Your task to perform on an android device: What's on my calendar today? Image 0: 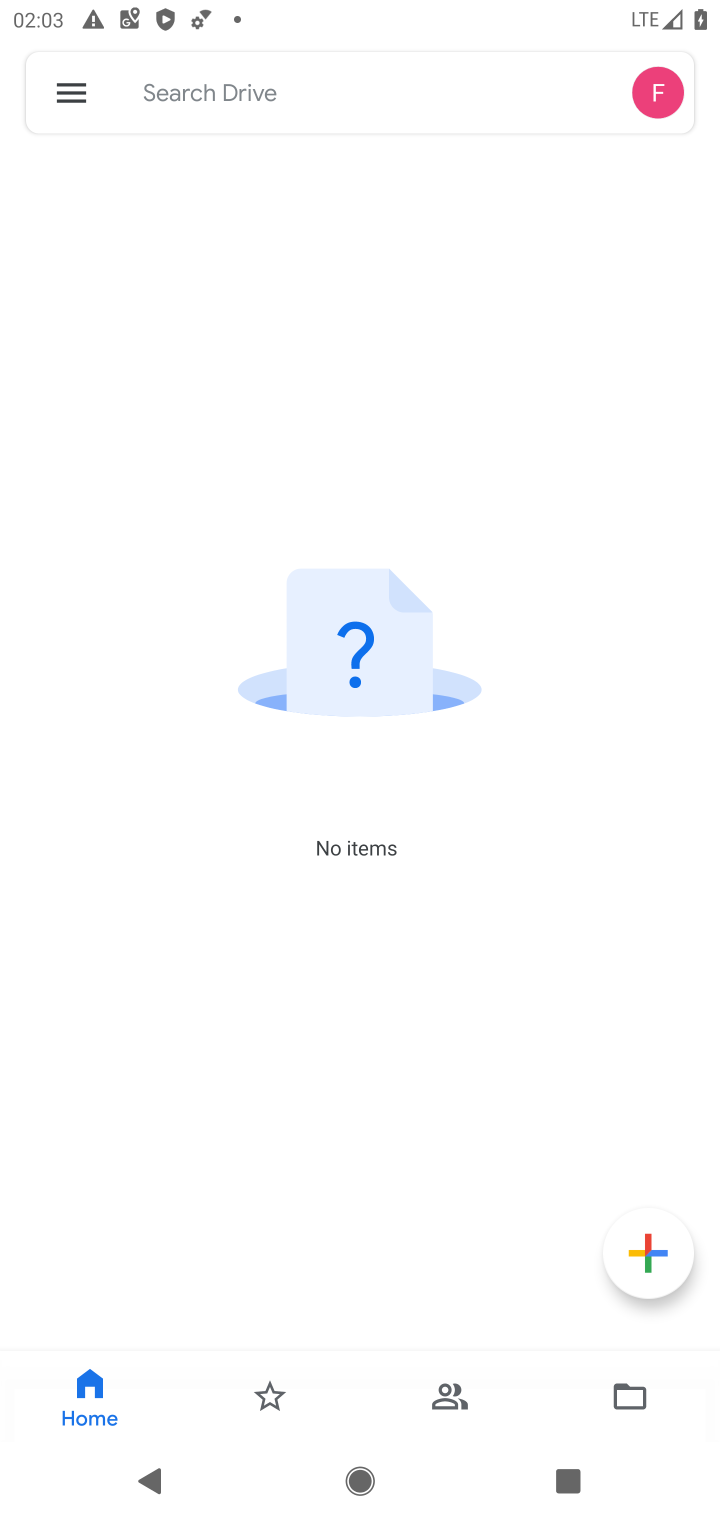
Step 0: press home button
Your task to perform on an android device: What's on my calendar today? Image 1: 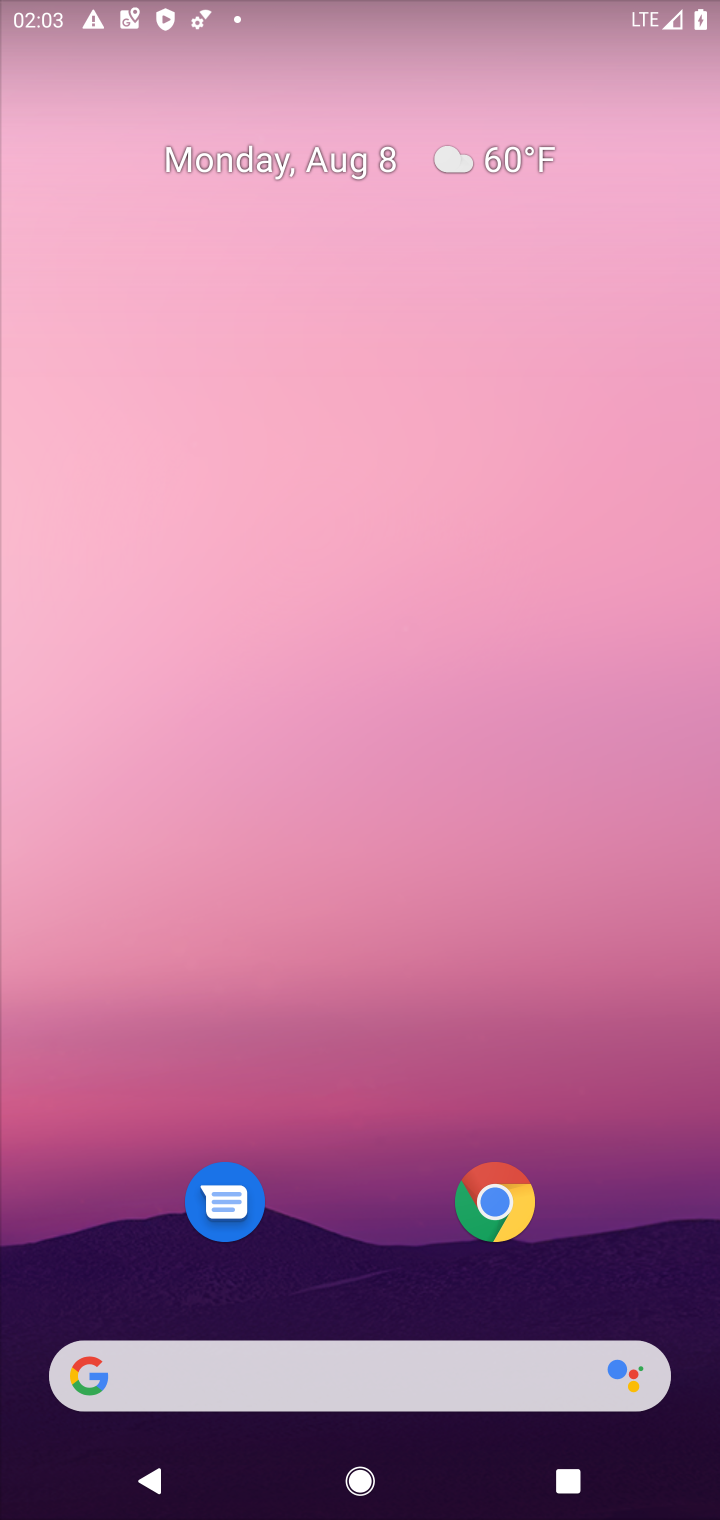
Step 1: click (323, 1275)
Your task to perform on an android device: What's on my calendar today? Image 2: 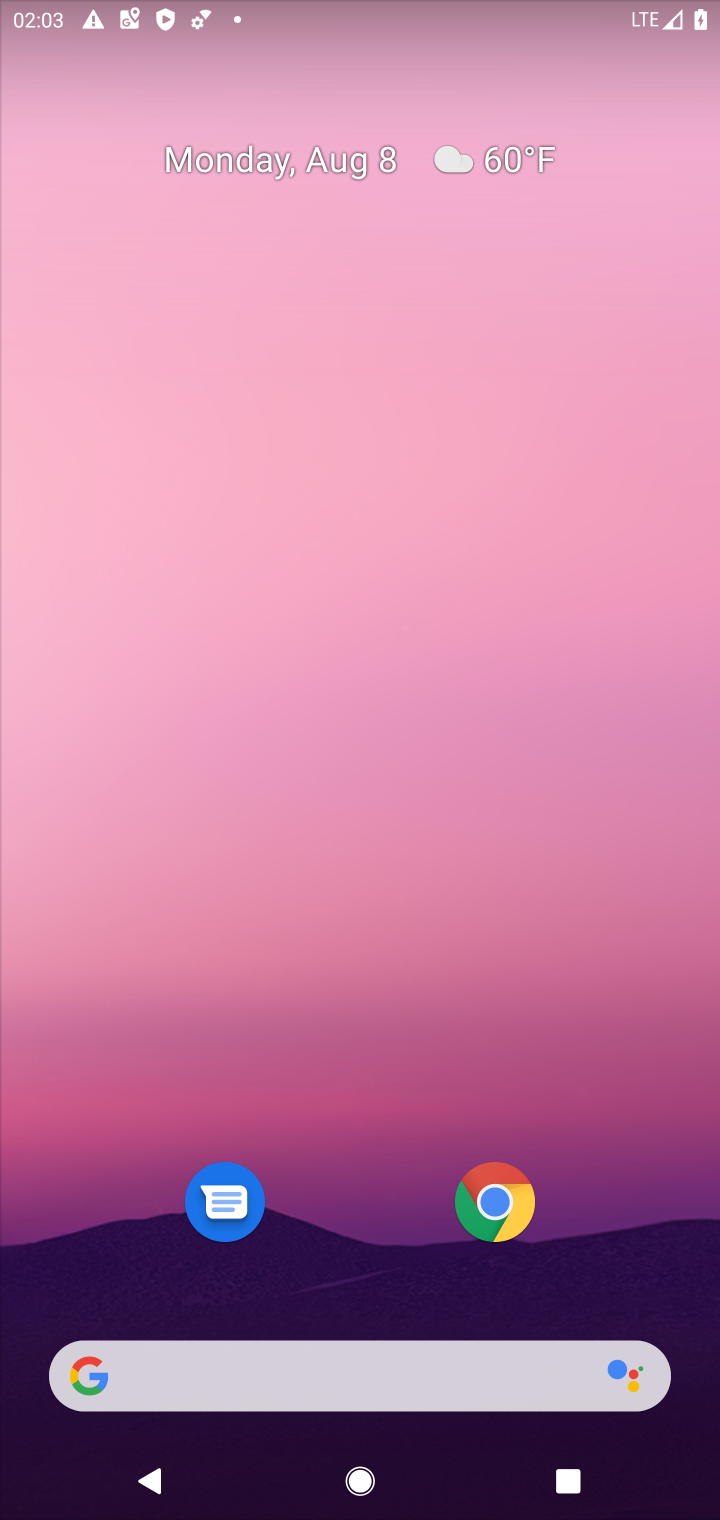
Step 2: click (242, 225)
Your task to perform on an android device: What's on my calendar today? Image 3: 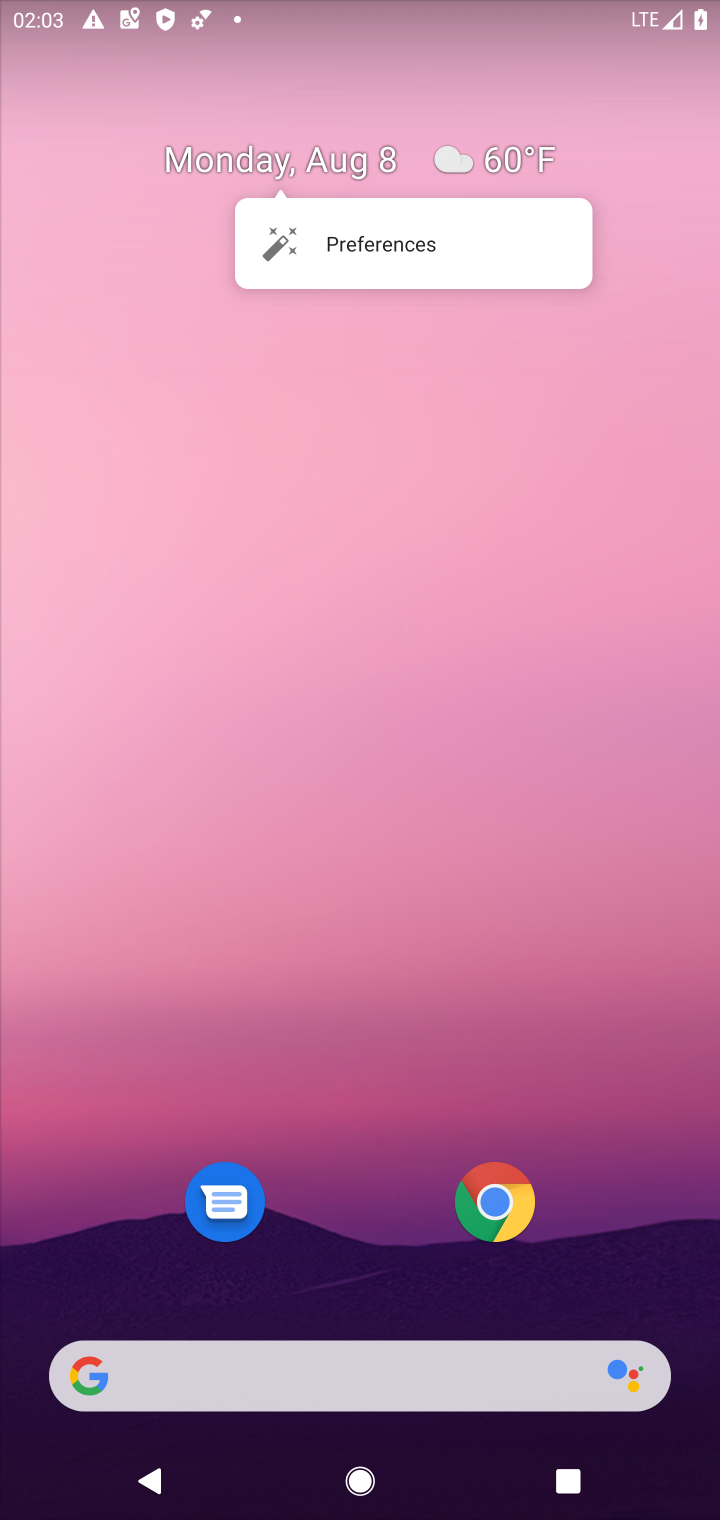
Step 3: click (385, 1260)
Your task to perform on an android device: What's on my calendar today? Image 4: 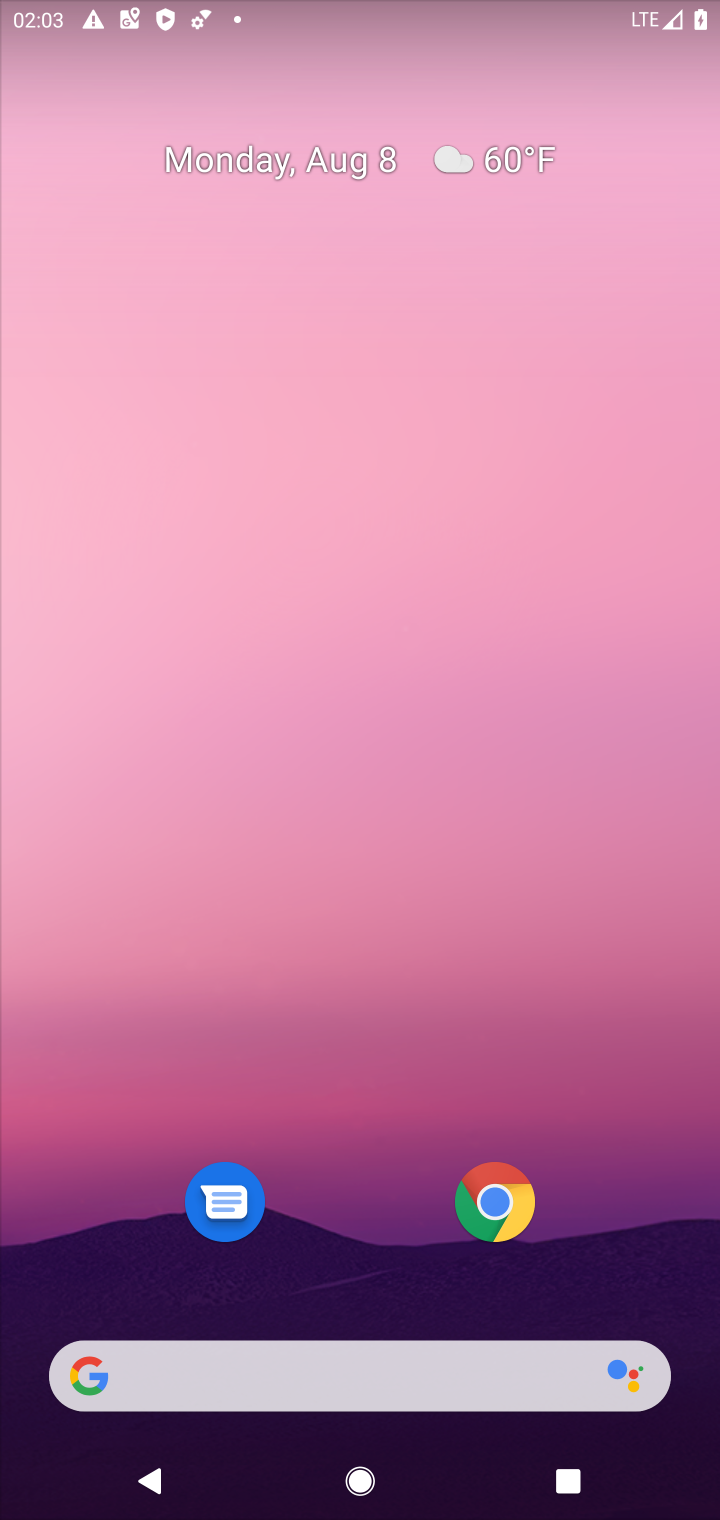
Step 4: drag from (367, 277) to (365, 79)
Your task to perform on an android device: What's on my calendar today? Image 5: 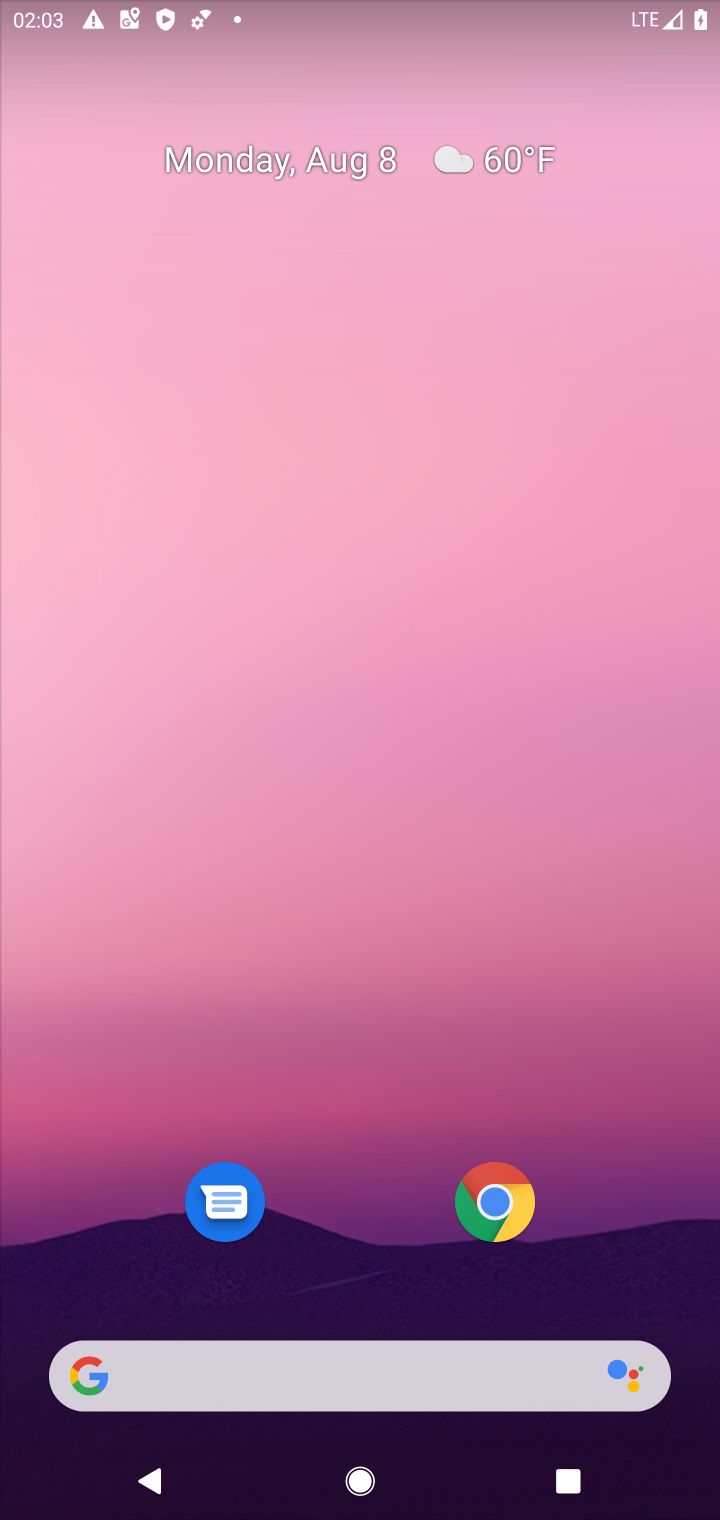
Step 5: drag from (369, 693) to (369, 98)
Your task to perform on an android device: What's on my calendar today? Image 6: 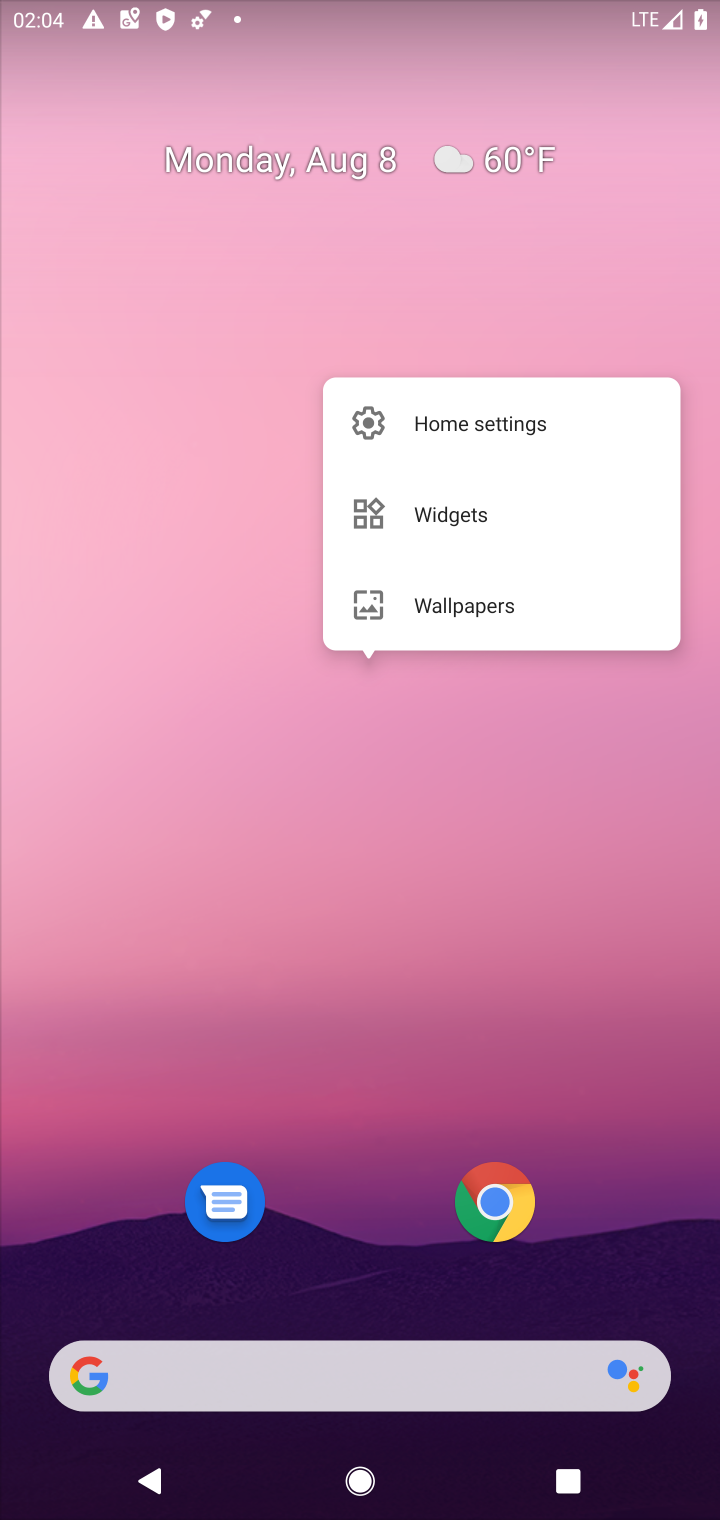
Step 6: click (404, 1215)
Your task to perform on an android device: What's on my calendar today? Image 7: 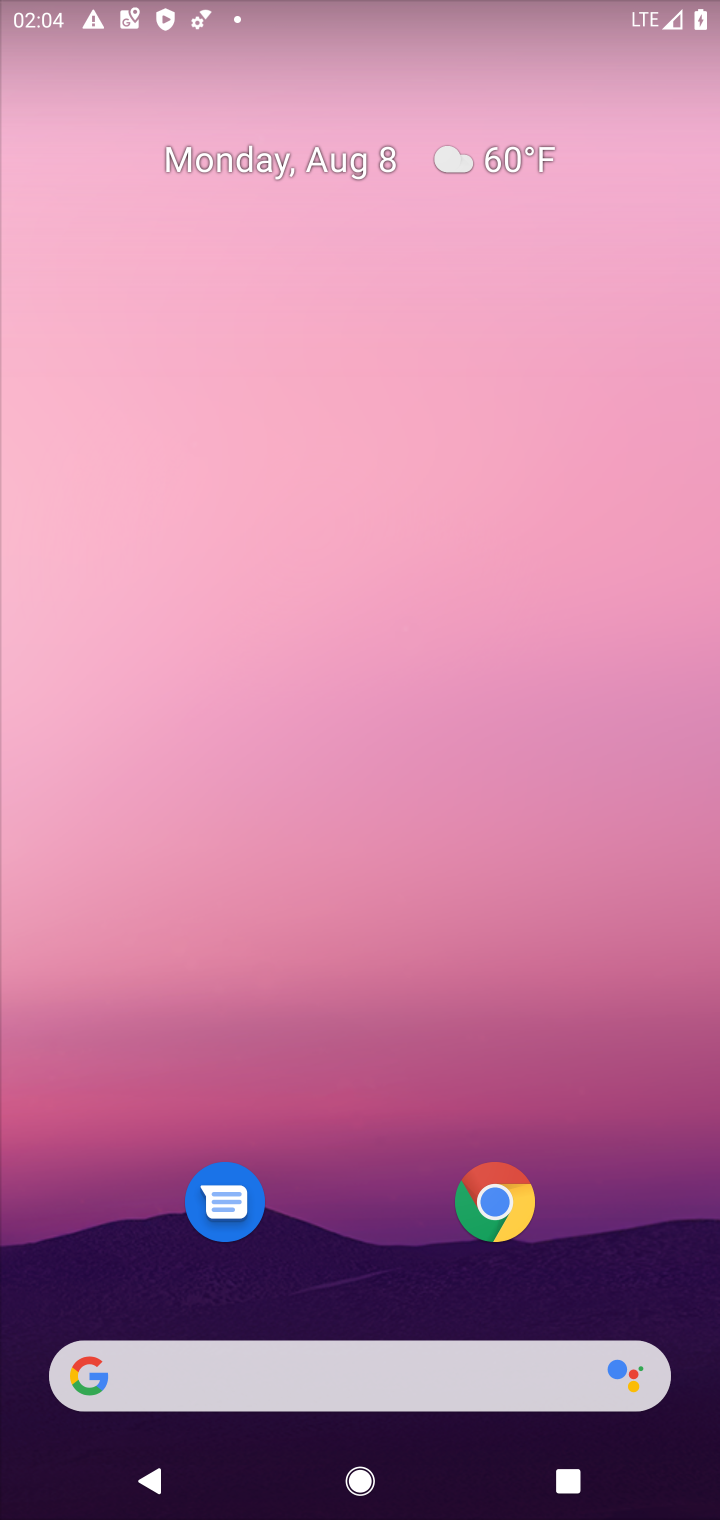
Step 7: drag from (315, 405) to (186, 26)
Your task to perform on an android device: What's on my calendar today? Image 8: 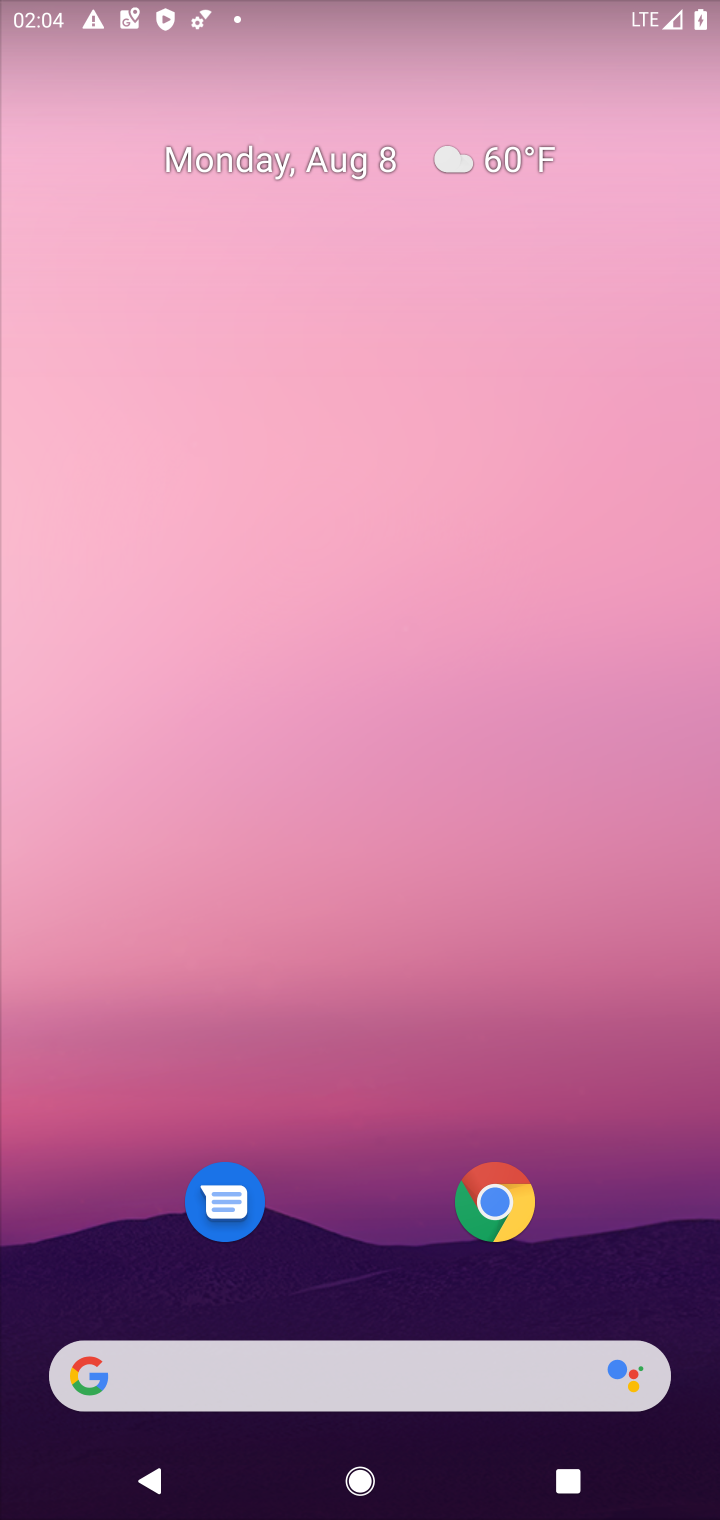
Step 8: drag from (355, 993) to (373, 74)
Your task to perform on an android device: What's on my calendar today? Image 9: 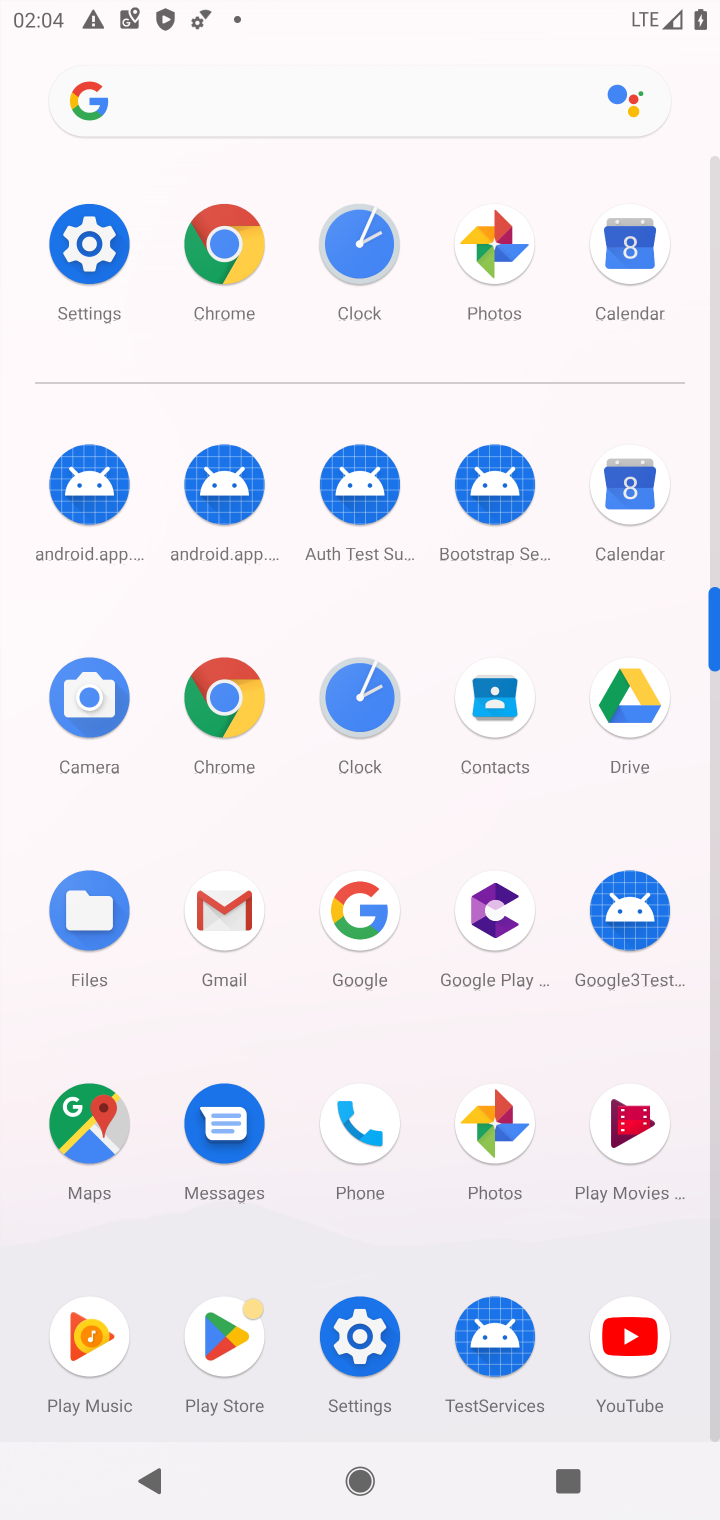
Step 9: click (655, 504)
Your task to perform on an android device: What's on my calendar today? Image 10: 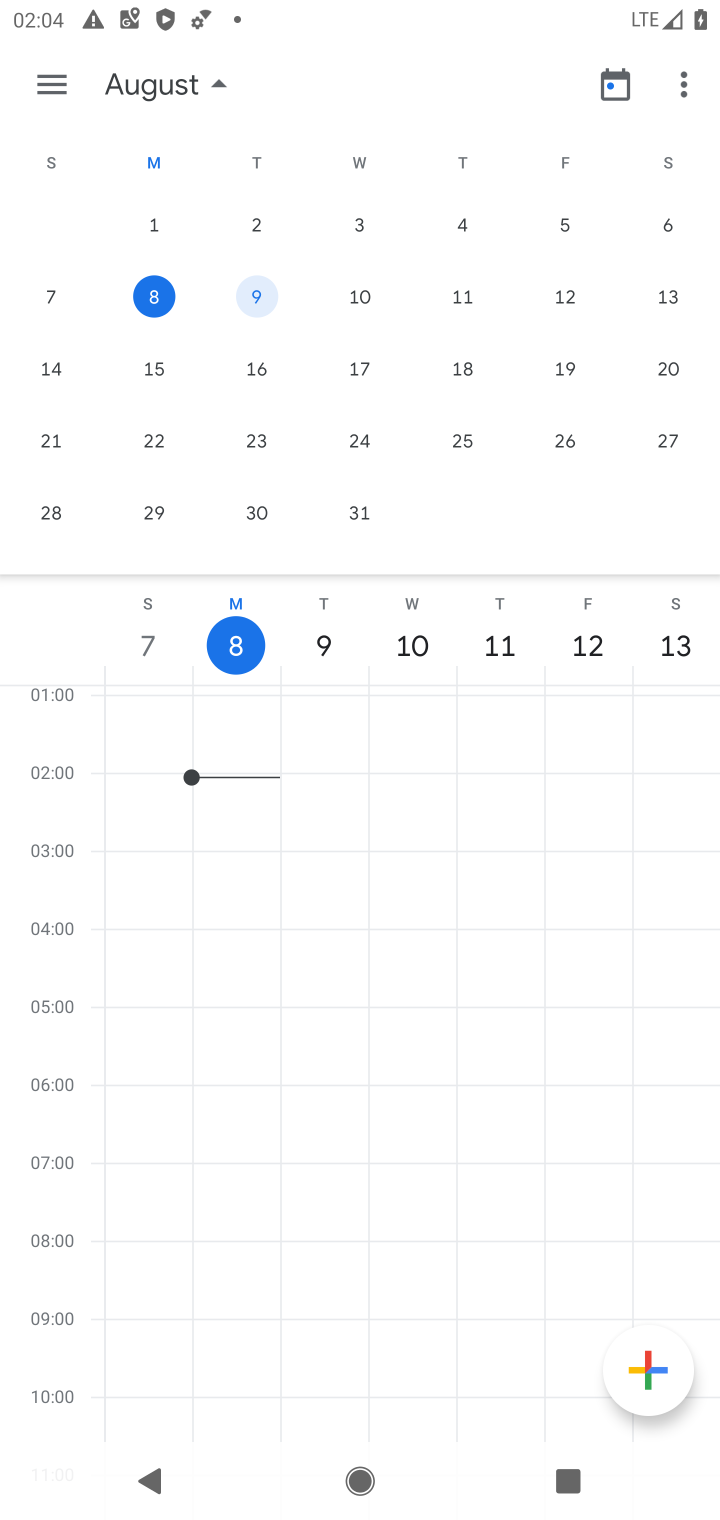
Step 10: click (39, 70)
Your task to perform on an android device: What's on my calendar today? Image 11: 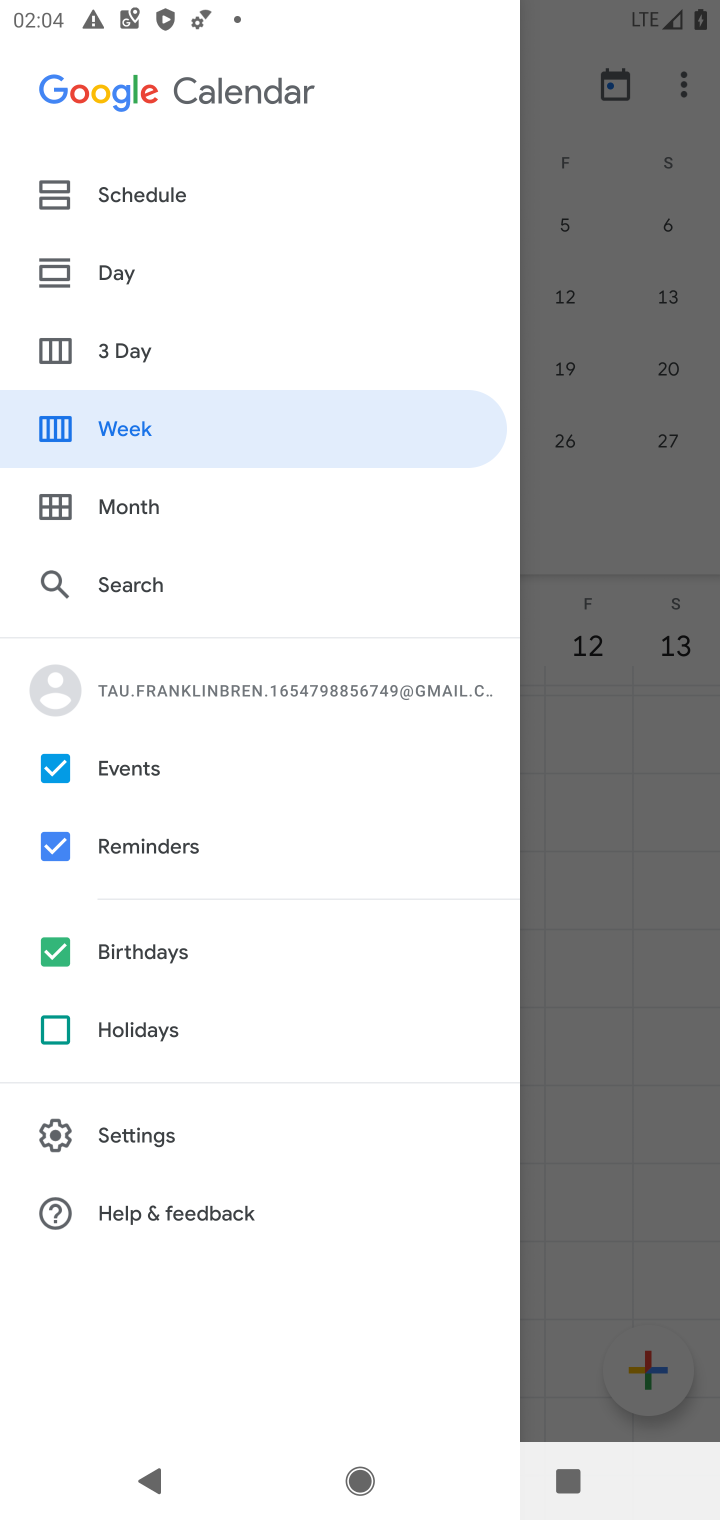
Step 11: click (95, 186)
Your task to perform on an android device: What's on my calendar today? Image 12: 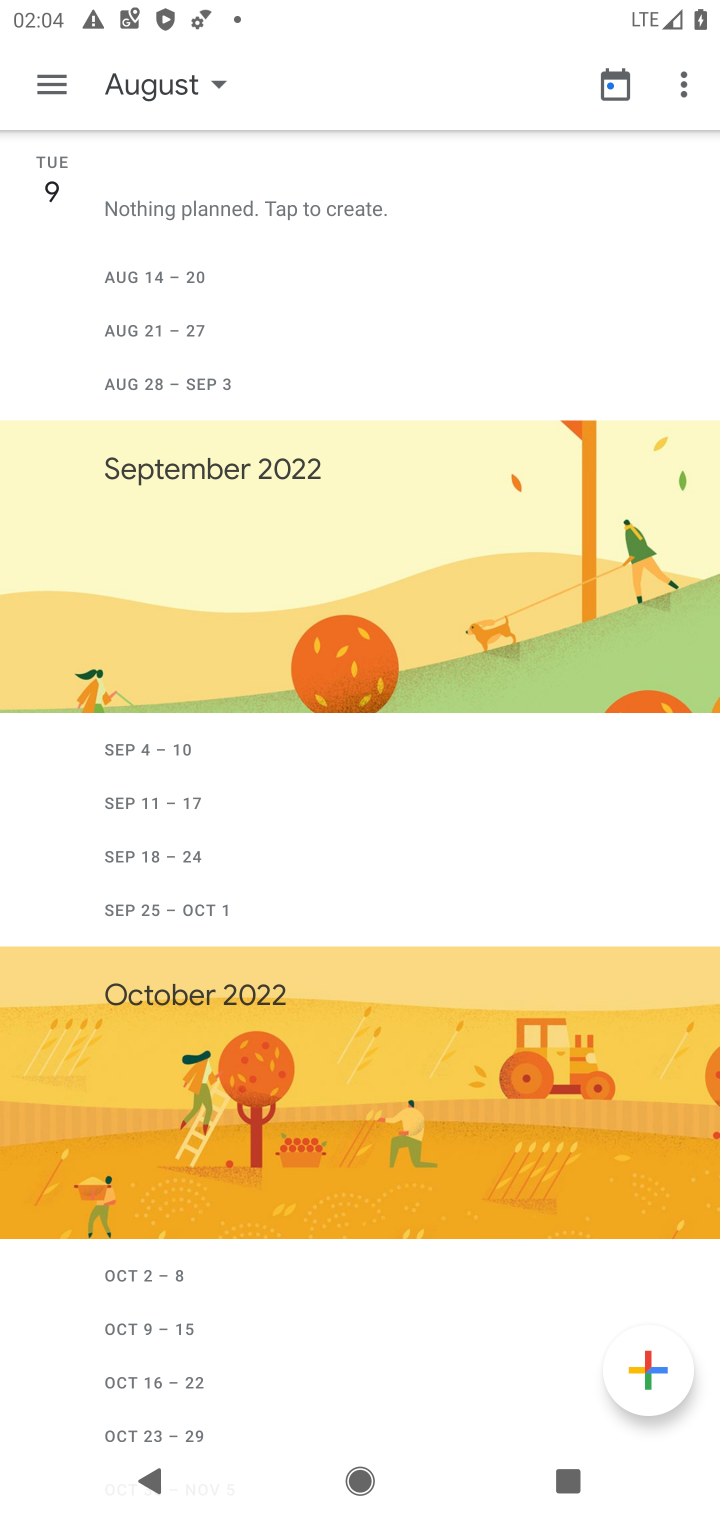
Step 12: task complete